Your task to perform on an android device: toggle data saver in the chrome app Image 0: 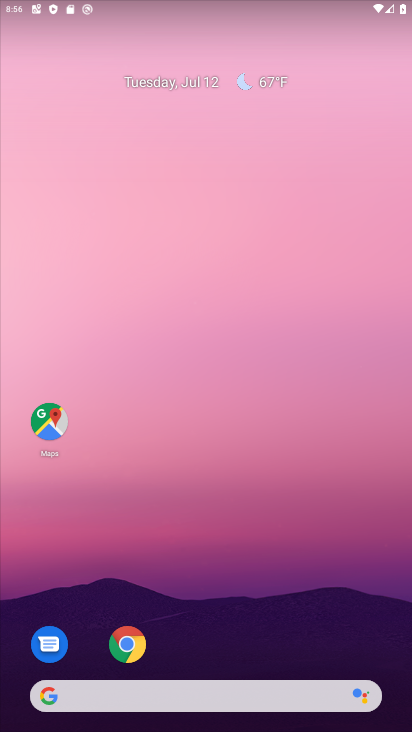
Step 0: drag from (194, 460) to (275, 62)
Your task to perform on an android device: toggle data saver in the chrome app Image 1: 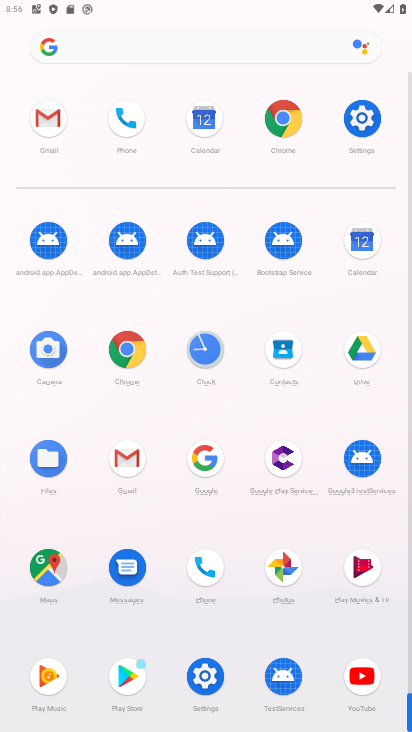
Step 1: click (281, 112)
Your task to perform on an android device: toggle data saver in the chrome app Image 2: 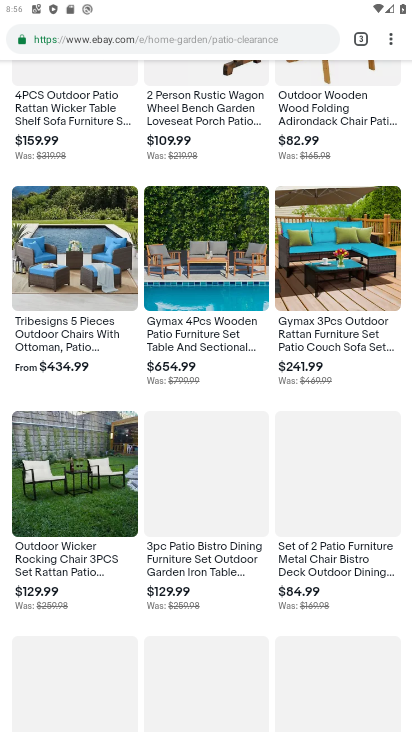
Step 2: drag from (232, 204) to (272, 512)
Your task to perform on an android device: toggle data saver in the chrome app Image 3: 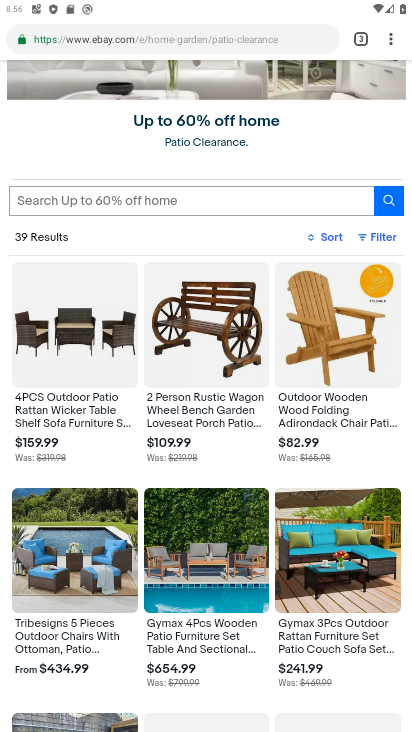
Step 3: drag from (283, 132) to (264, 514)
Your task to perform on an android device: toggle data saver in the chrome app Image 4: 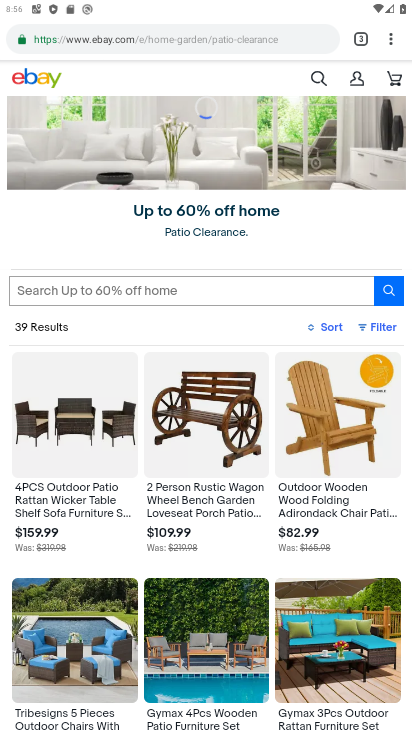
Step 4: click (390, 38)
Your task to perform on an android device: toggle data saver in the chrome app Image 5: 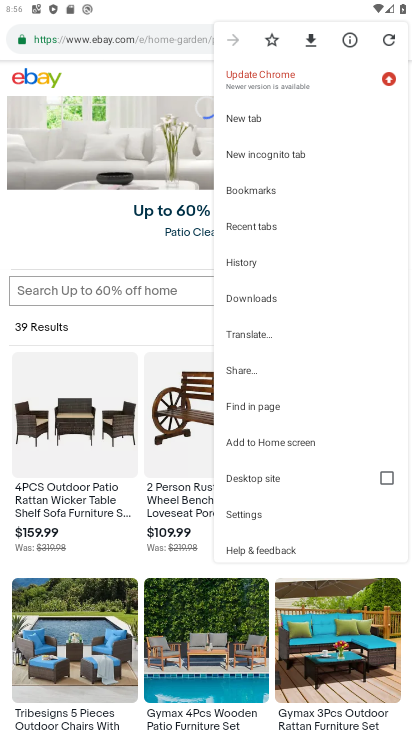
Step 5: click (267, 517)
Your task to perform on an android device: toggle data saver in the chrome app Image 6: 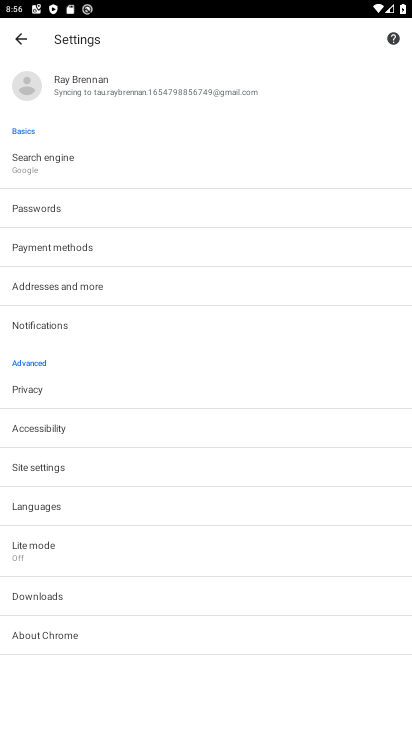
Step 6: click (125, 548)
Your task to perform on an android device: toggle data saver in the chrome app Image 7: 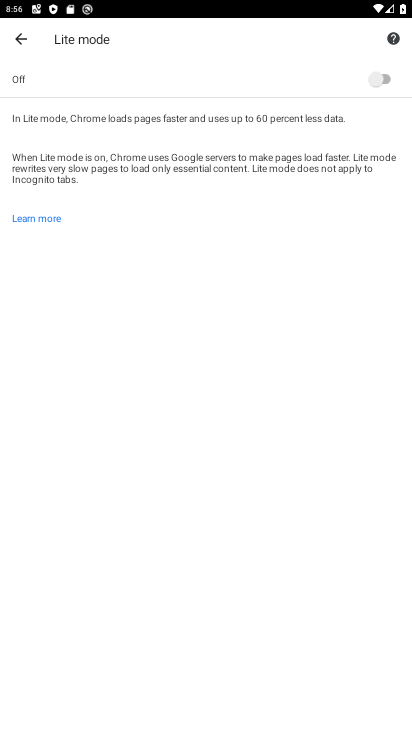
Step 7: click (360, 83)
Your task to perform on an android device: toggle data saver in the chrome app Image 8: 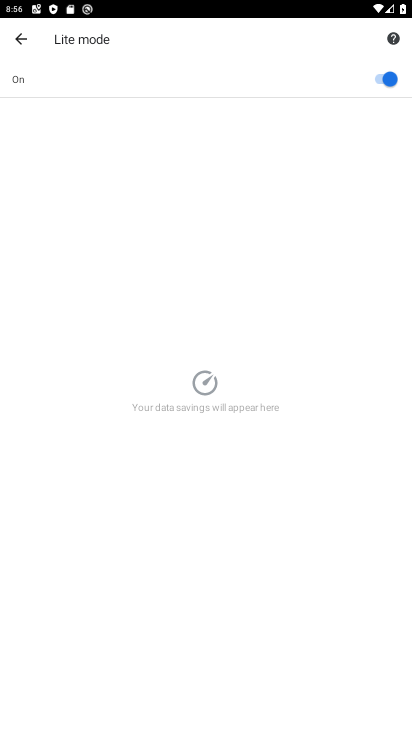
Step 8: task complete